Your task to perform on an android device: choose inbox layout in the gmail app Image 0: 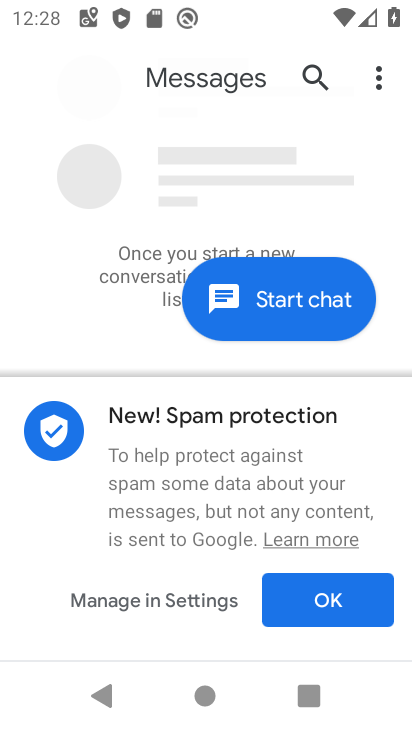
Step 0: press home button
Your task to perform on an android device: choose inbox layout in the gmail app Image 1: 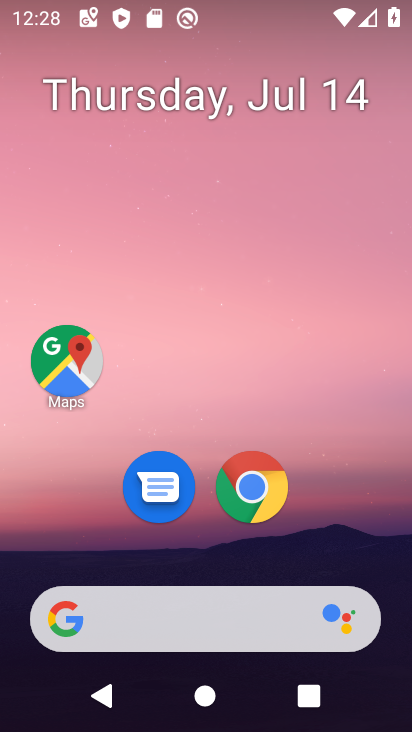
Step 1: drag from (200, 726) to (158, 142)
Your task to perform on an android device: choose inbox layout in the gmail app Image 2: 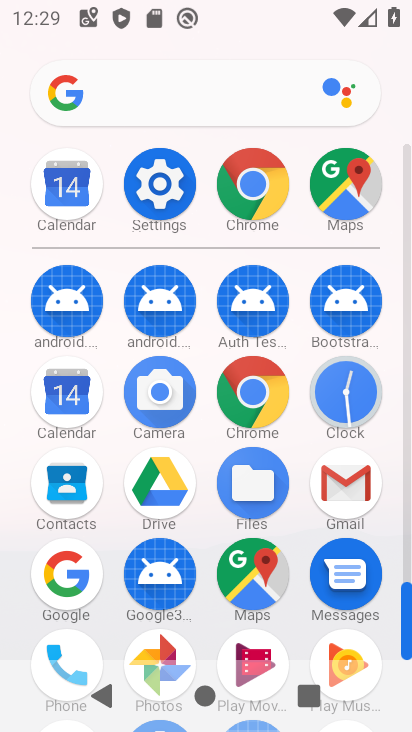
Step 2: click (337, 475)
Your task to perform on an android device: choose inbox layout in the gmail app Image 3: 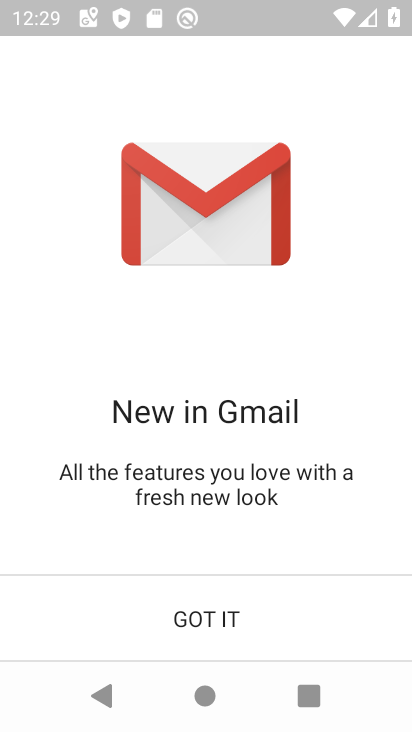
Step 3: click (236, 617)
Your task to perform on an android device: choose inbox layout in the gmail app Image 4: 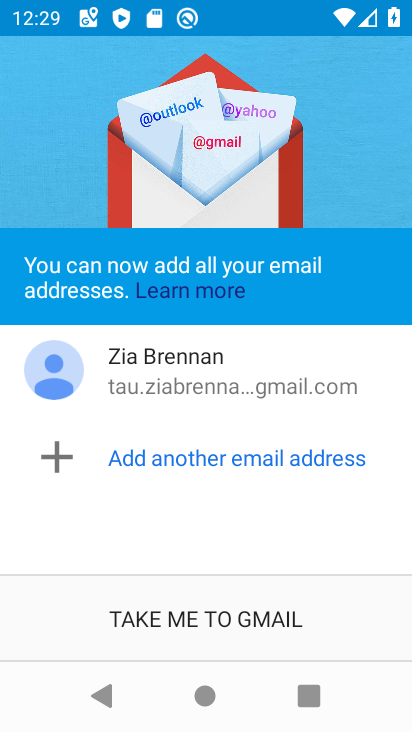
Step 4: click (235, 606)
Your task to perform on an android device: choose inbox layout in the gmail app Image 5: 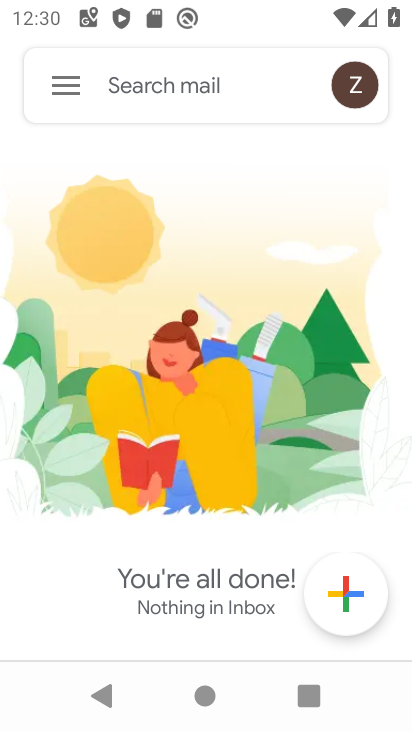
Step 5: click (62, 96)
Your task to perform on an android device: choose inbox layout in the gmail app Image 6: 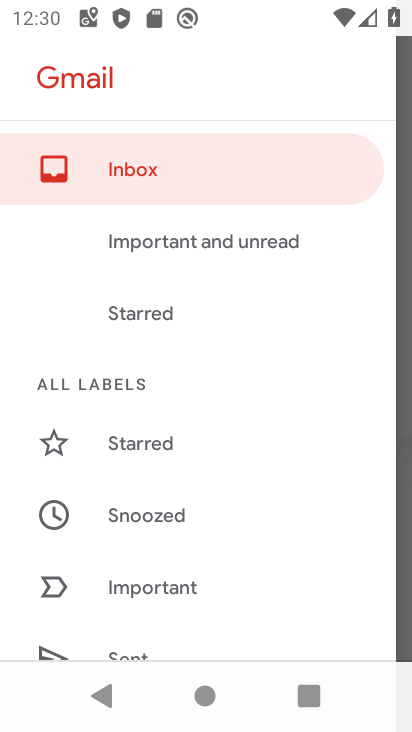
Step 6: task complete